Your task to perform on an android device: create a new album in the google photos Image 0: 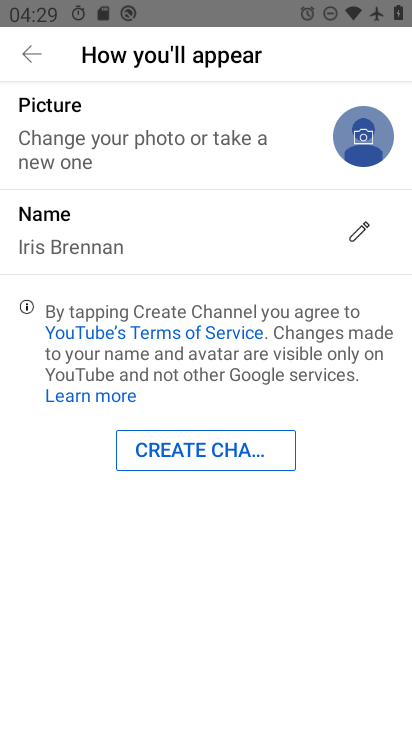
Step 0: press home button
Your task to perform on an android device: create a new album in the google photos Image 1: 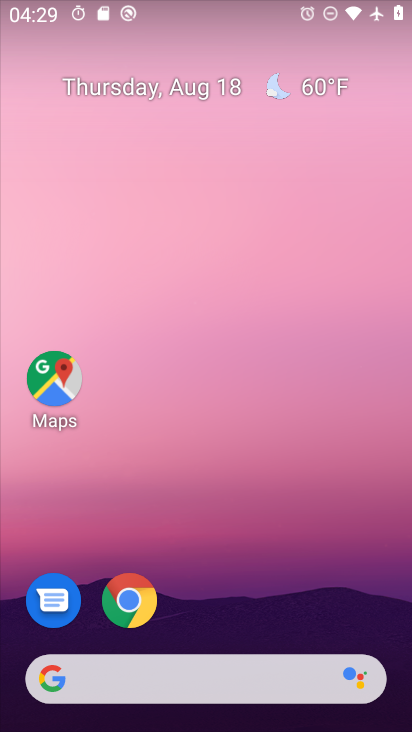
Step 1: drag from (200, 635) to (163, 7)
Your task to perform on an android device: create a new album in the google photos Image 2: 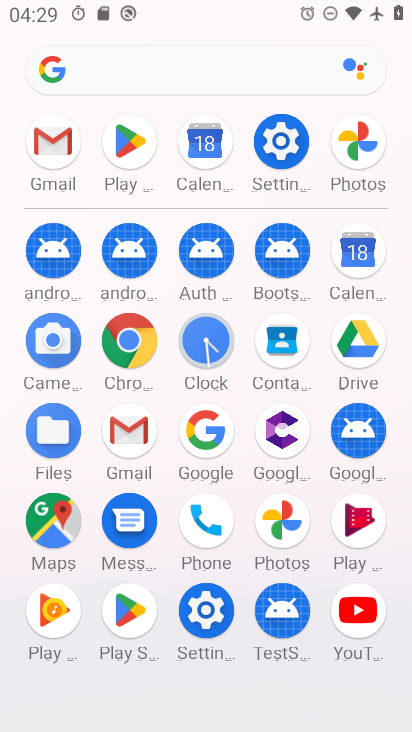
Step 2: click (360, 146)
Your task to perform on an android device: create a new album in the google photos Image 3: 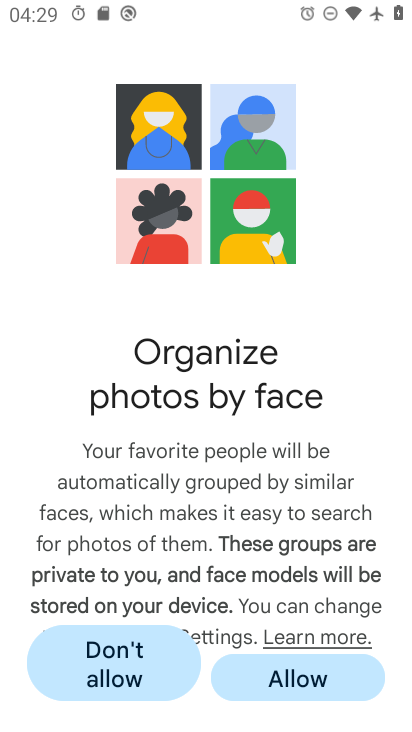
Step 3: click (259, 677)
Your task to perform on an android device: create a new album in the google photos Image 4: 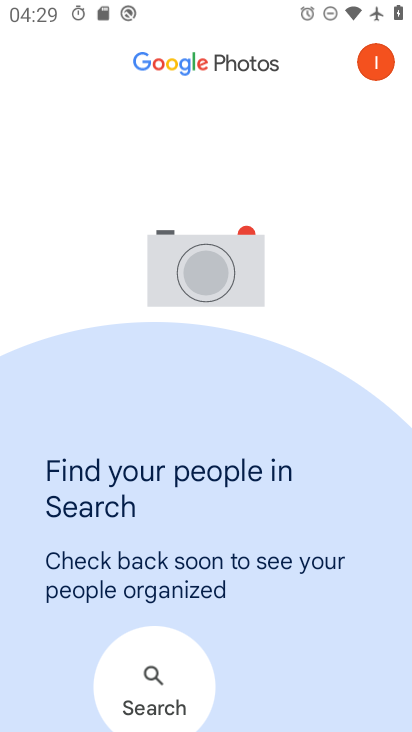
Step 4: click (333, 293)
Your task to perform on an android device: create a new album in the google photos Image 5: 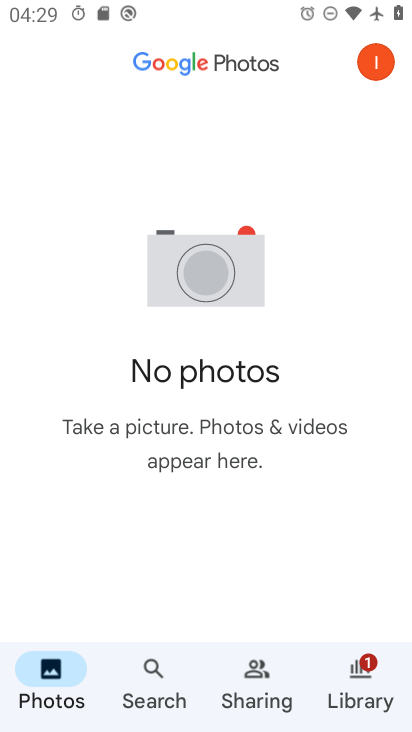
Step 5: task complete